Your task to perform on an android device: check google app version Image 0: 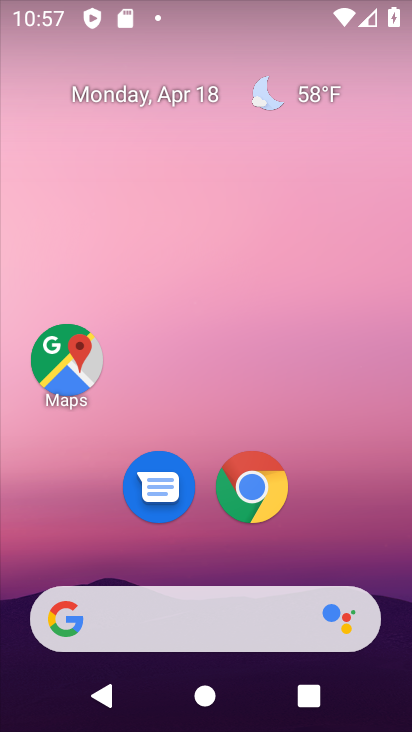
Step 0: drag from (358, 478) to (280, 62)
Your task to perform on an android device: check google app version Image 1: 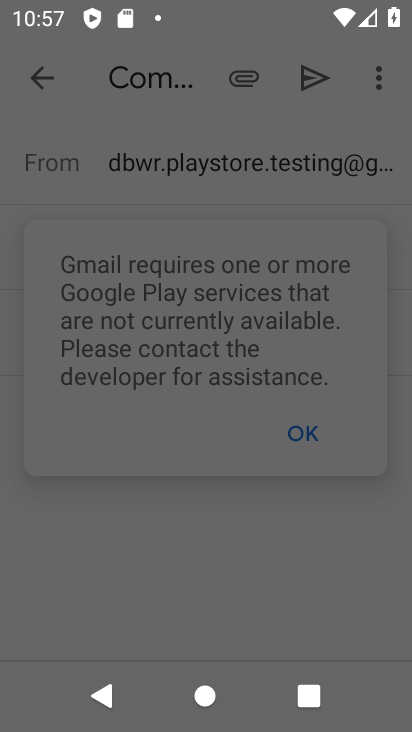
Step 1: press home button
Your task to perform on an android device: check google app version Image 2: 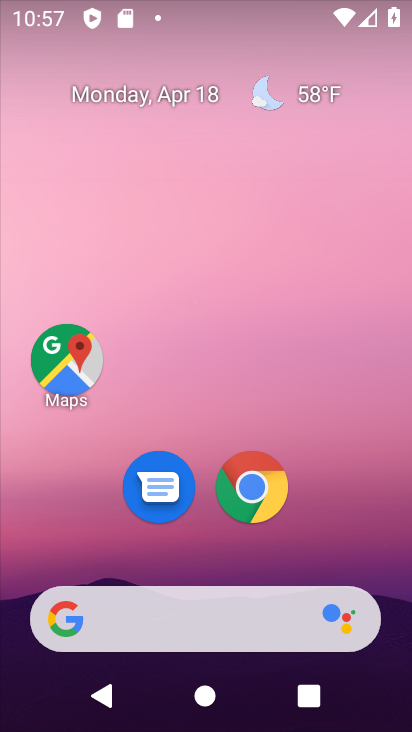
Step 2: drag from (331, 525) to (298, 136)
Your task to perform on an android device: check google app version Image 3: 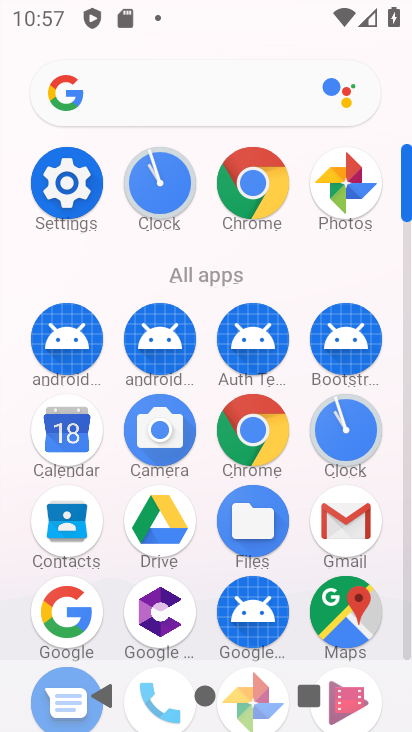
Step 3: click (42, 615)
Your task to perform on an android device: check google app version Image 4: 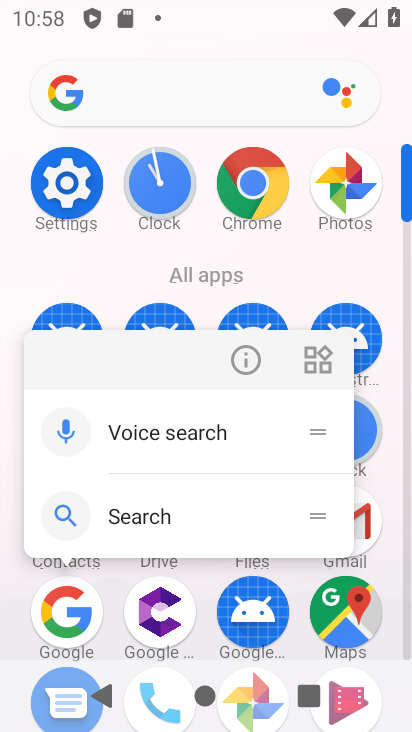
Step 4: click (245, 371)
Your task to perform on an android device: check google app version Image 5: 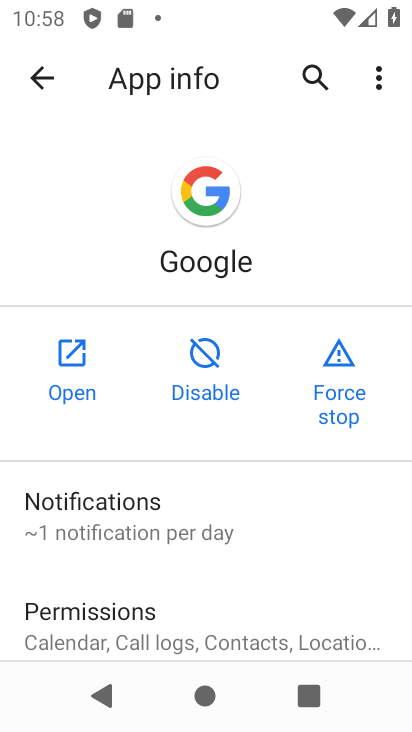
Step 5: drag from (237, 562) to (185, 214)
Your task to perform on an android device: check google app version Image 6: 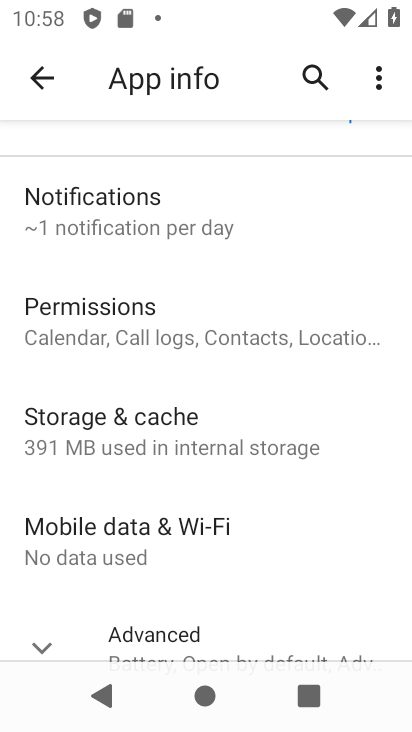
Step 6: drag from (199, 570) to (185, 241)
Your task to perform on an android device: check google app version Image 7: 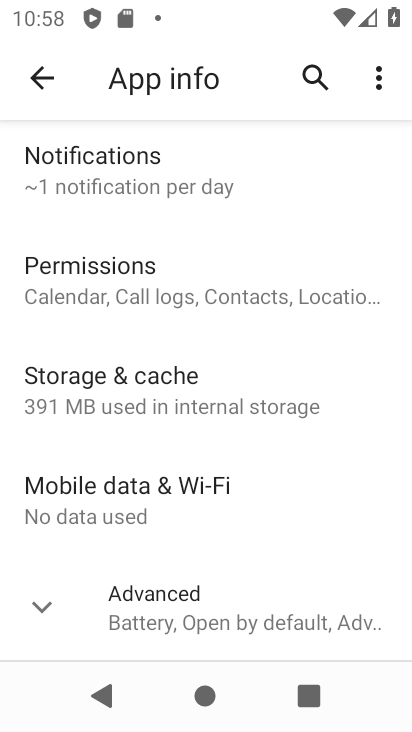
Step 7: click (164, 600)
Your task to perform on an android device: check google app version Image 8: 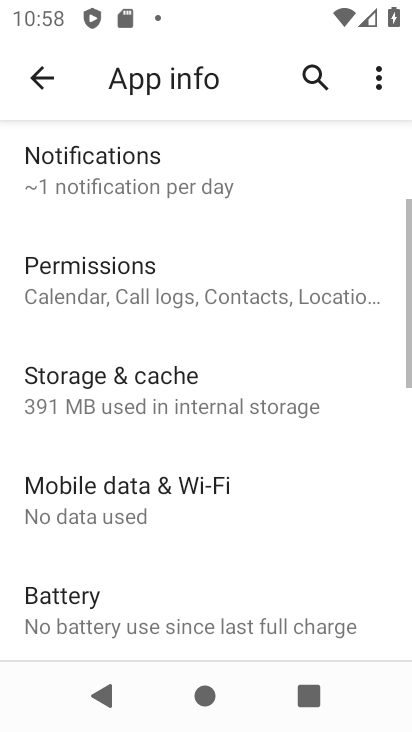
Step 8: task complete